Your task to perform on an android device: check out phone information Image 0: 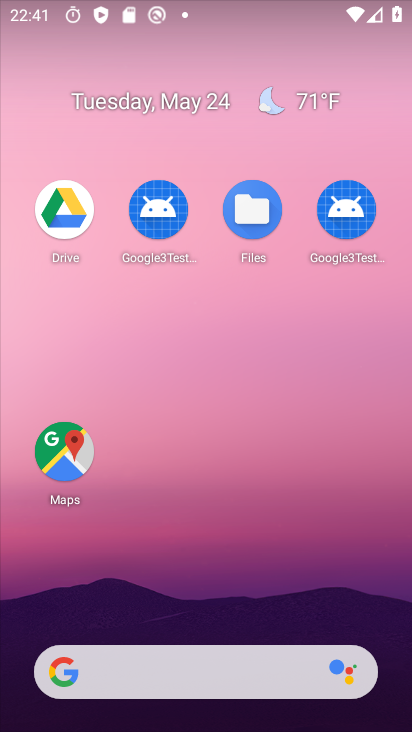
Step 0: drag from (206, 624) to (277, 21)
Your task to perform on an android device: check out phone information Image 1: 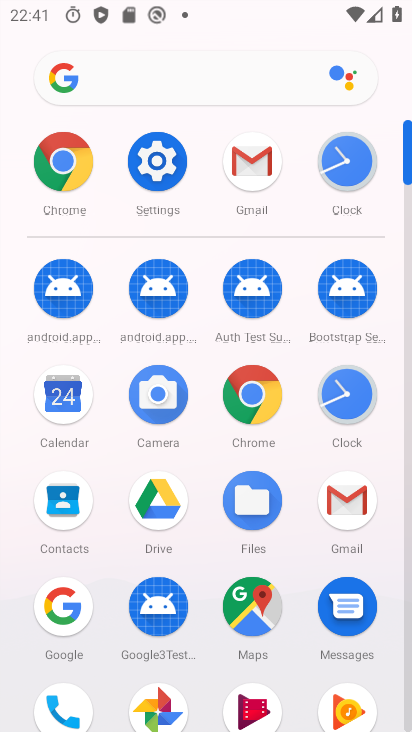
Step 1: click (135, 153)
Your task to perform on an android device: check out phone information Image 2: 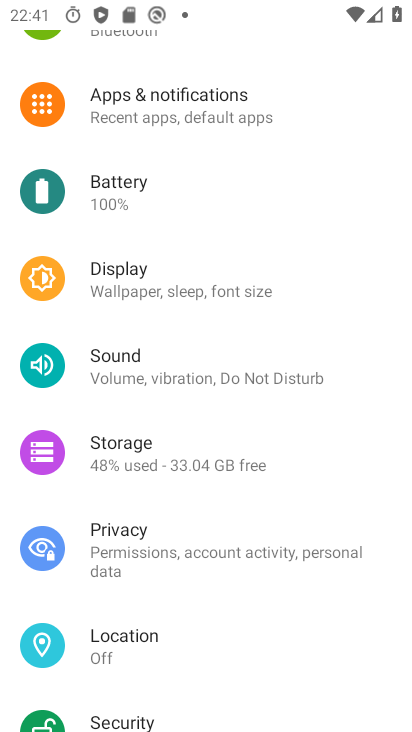
Step 2: task complete